Your task to perform on an android device: Google the capital of Colombia Image 0: 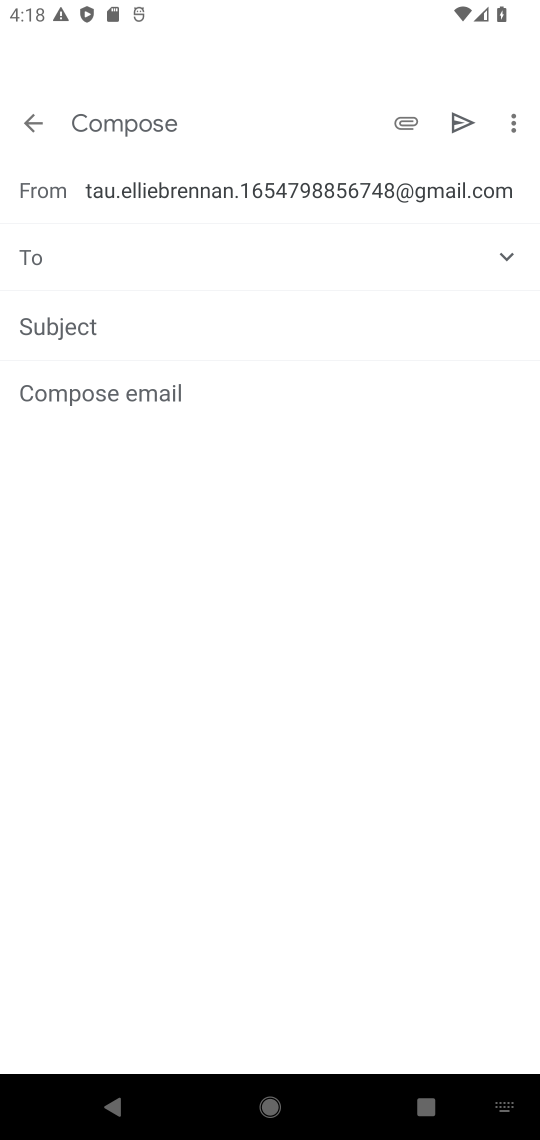
Step 0: press home button
Your task to perform on an android device: Google the capital of Colombia Image 1: 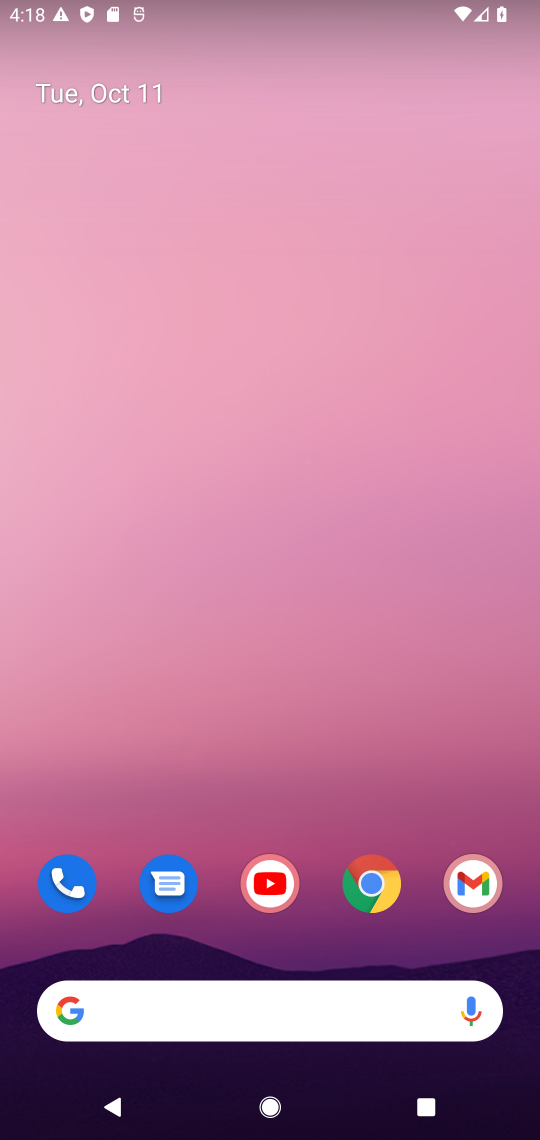
Step 1: drag from (325, 941) to (308, 182)
Your task to perform on an android device: Google the capital of Colombia Image 2: 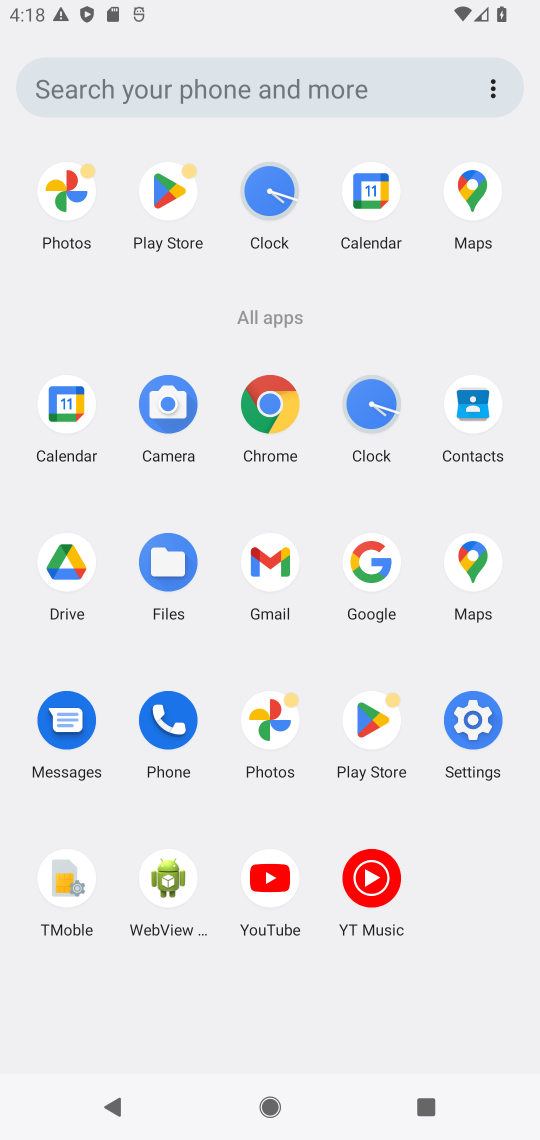
Step 2: click (264, 385)
Your task to perform on an android device: Google the capital of Colombia Image 3: 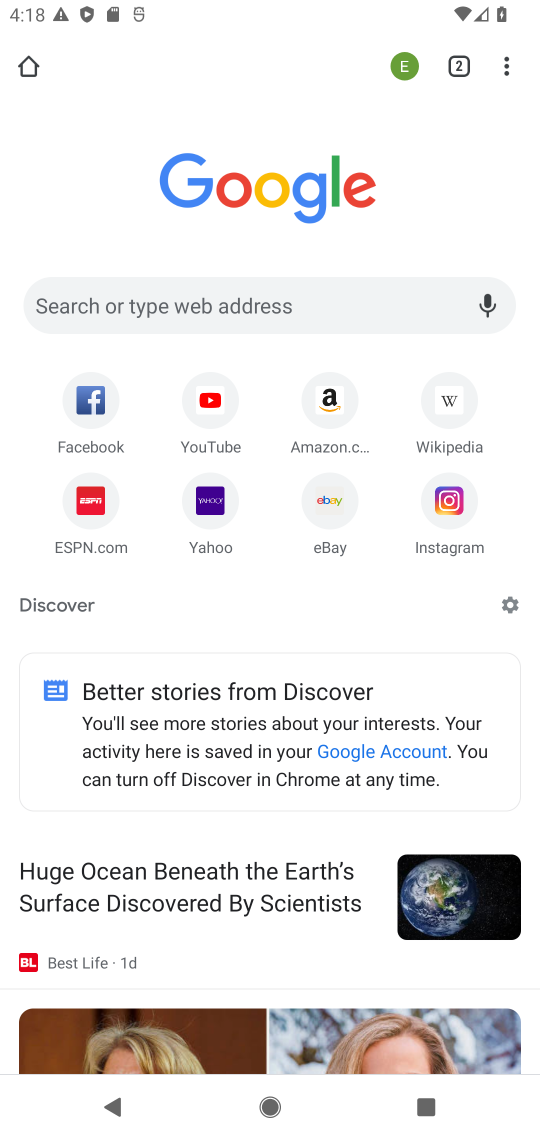
Step 3: click (287, 310)
Your task to perform on an android device: Google the capital of Colombia Image 4: 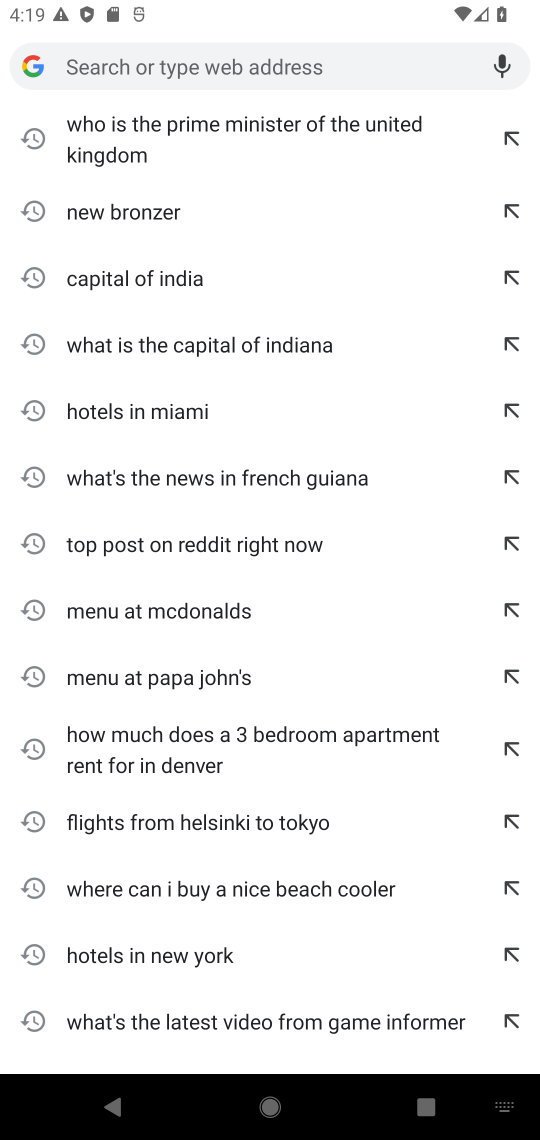
Step 4: type "the capital of Colombia"
Your task to perform on an android device: Google the capital of Colombia Image 5: 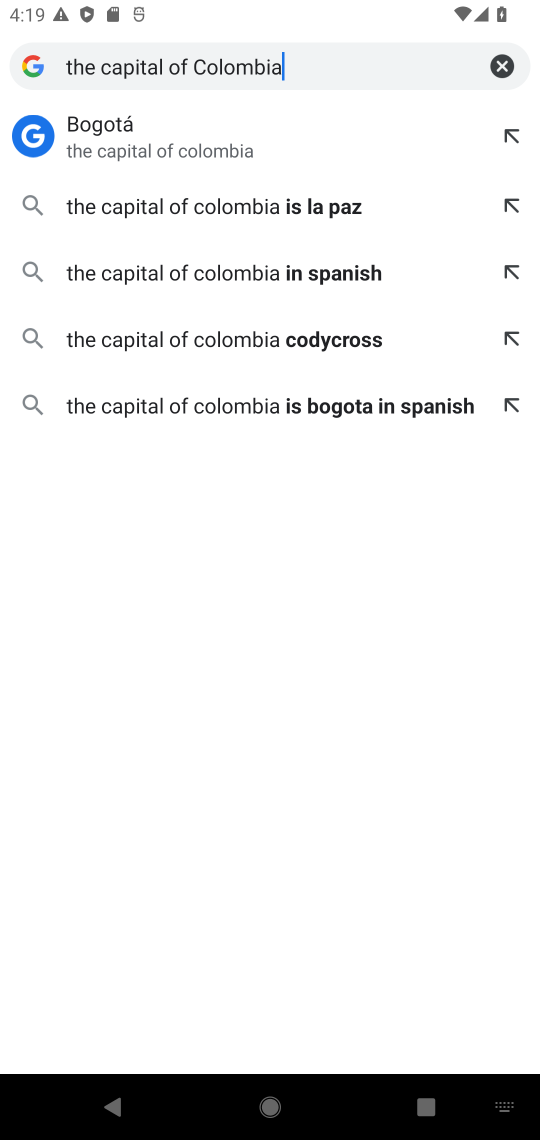
Step 5: press enter
Your task to perform on an android device: Google the capital of Colombia Image 6: 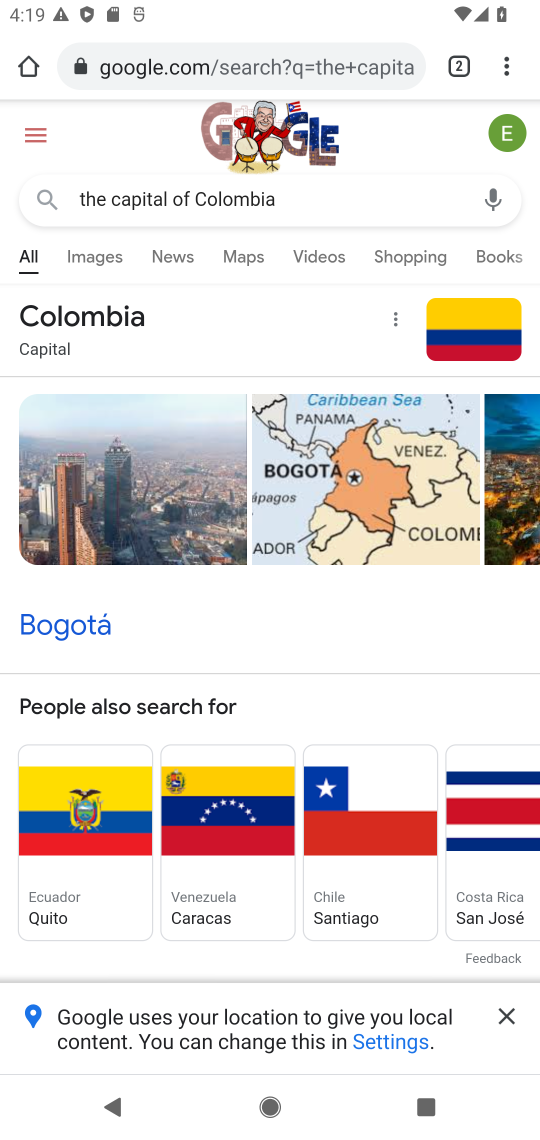
Step 6: task complete